Your task to perform on an android device: toggle javascript in the chrome app Image 0: 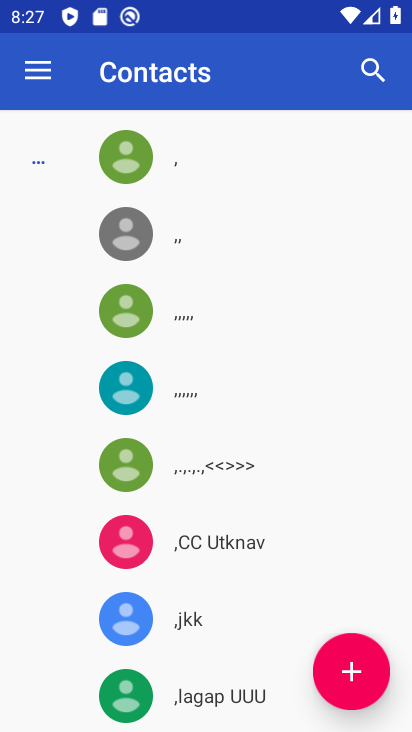
Step 0: press home button
Your task to perform on an android device: toggle javascript in the chrome app Image 1: 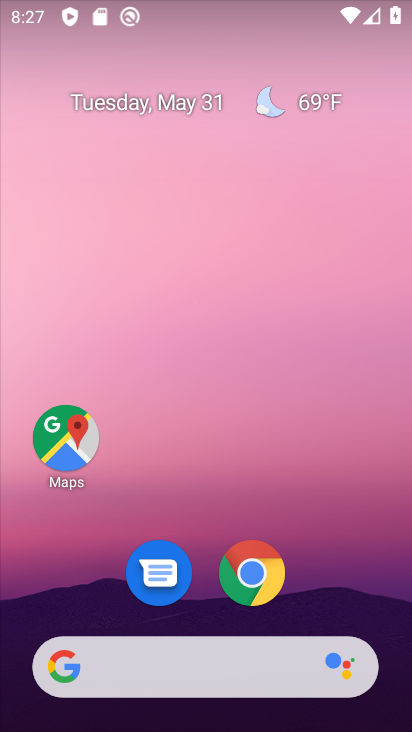
Step 1: click (247, 578)
Your task to perform on an android device: toggle javascript in the chrome app Image 2: 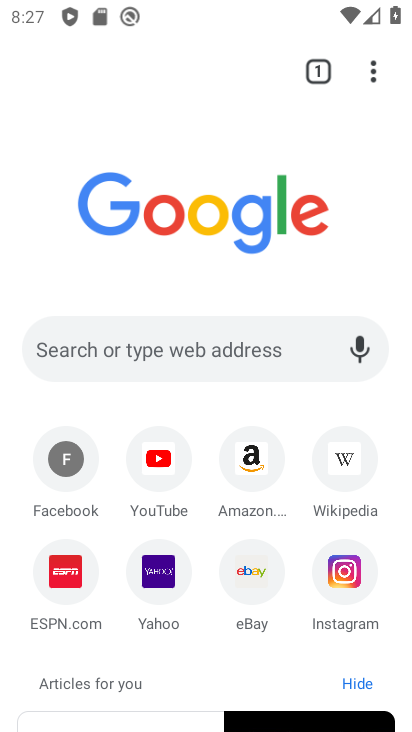
Step 2: click (365, 77)
Your task to perform on an android device: toggle javascript in the chrome app Image 3: 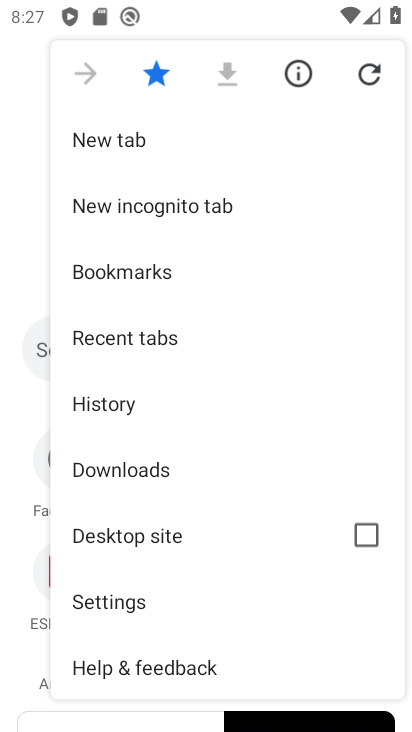
Step 3: drag from (135, 562) to (194, 190)
Your task to perform on an android device: toggle javascript in the chrome app Image 4: 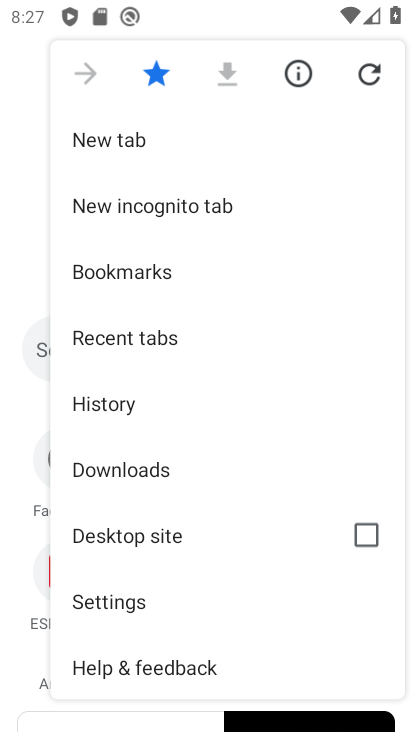
Step 4: click (98, 604)
Your task to perform on an android device: toggle javascript in the chrome app Image 5: 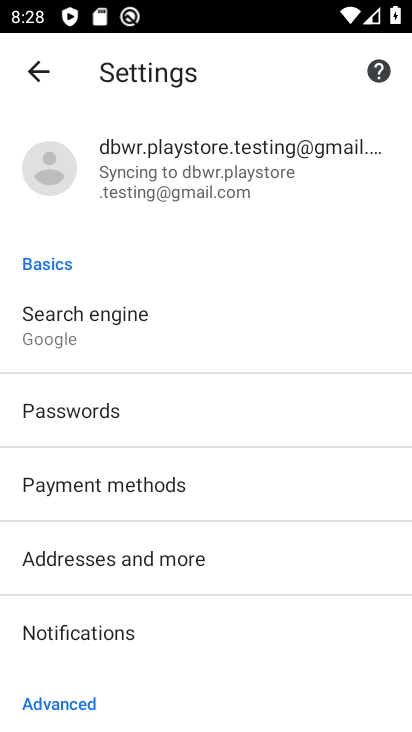
Step 5: drag from (67, 595) to (100, 300)
Your task to perform on an android device: toggle javascript in the chrome app Image 6: 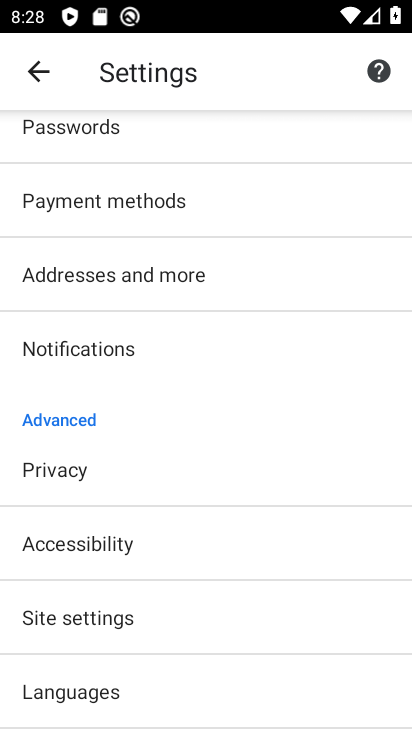
Step 6: click (85, 626)
Your task to perform on an android device: toggle javascript in the chrome app Image 7: 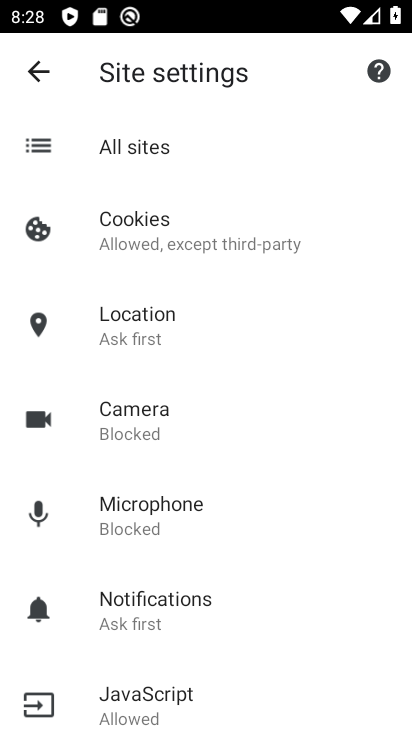
Step 7: click (144, 702)
Your task to perform on an android device: toggle javascript in the chrome app Image 8: 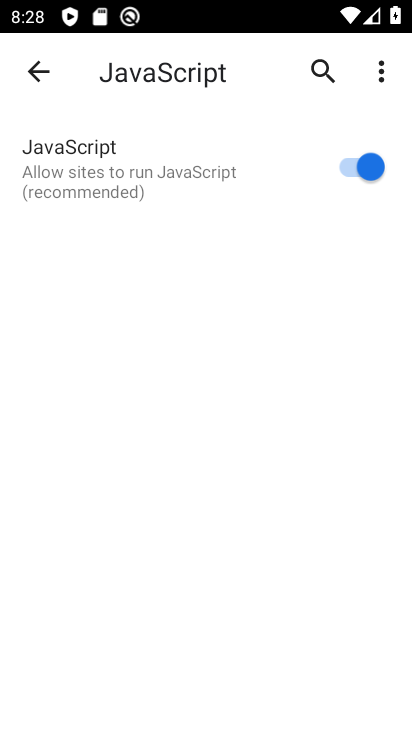
Step 8: click (333, 174)
Your task to perform on an android device: toggle javascript in the chrome app Image 9: 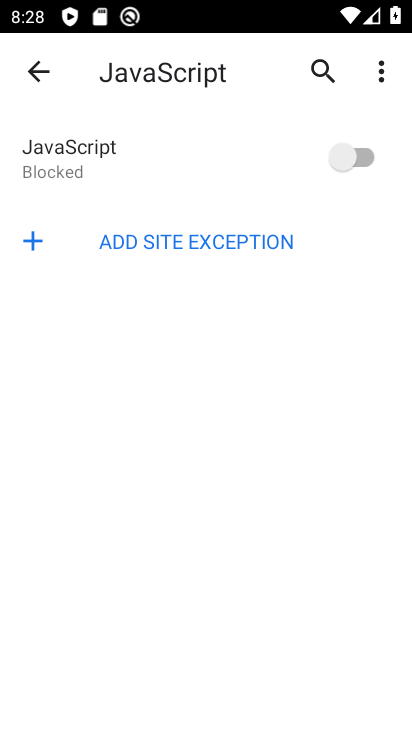
Step 9: task complete